Your task to perform on an android device: open a new tab in the chrome app Image 0: 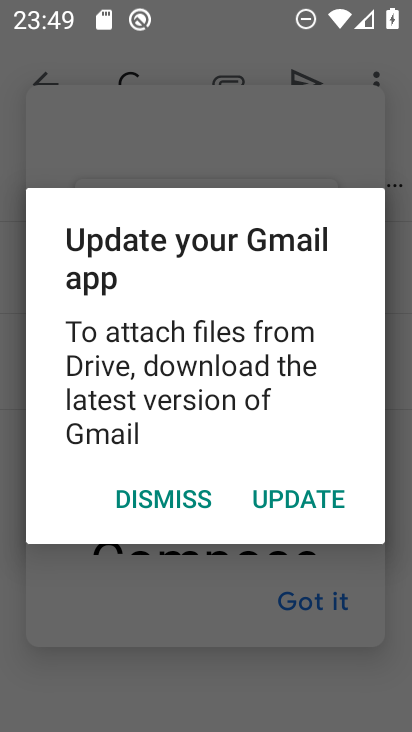
Step 0: press home button
Your task to perform on an android device: open a new tab in the chrome app Image 1: 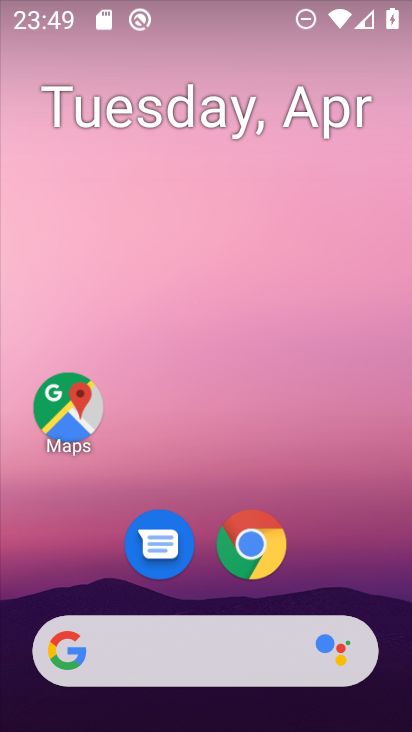
Step 1: drag from (317, 560) to (317, 183)
Your task to perform on an android device: open a new tab in the chrome app Image 2: 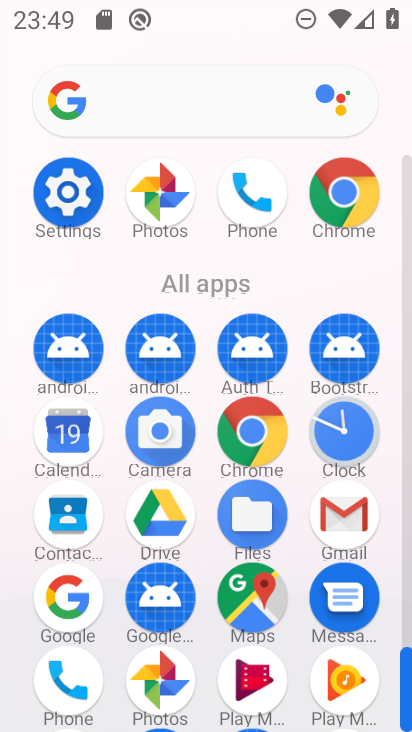
Step 2: click (347, 188)
Your task to perform on an android device: open a new tab in the chrome app Image 3: 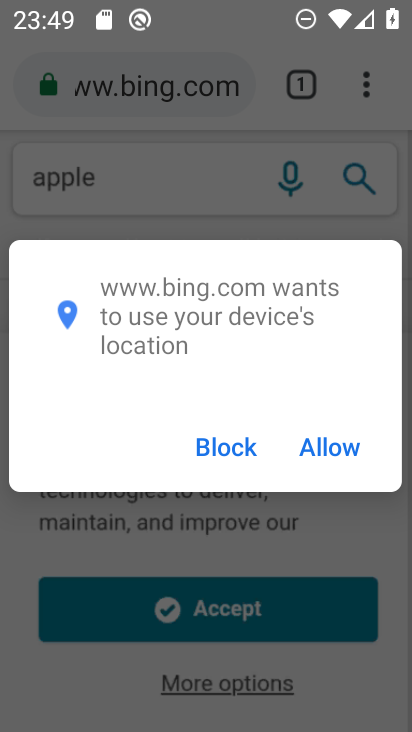
Step 3: click (257, 449)
Your task to perform on an android device: open a new tab in the chrome app Image 4: 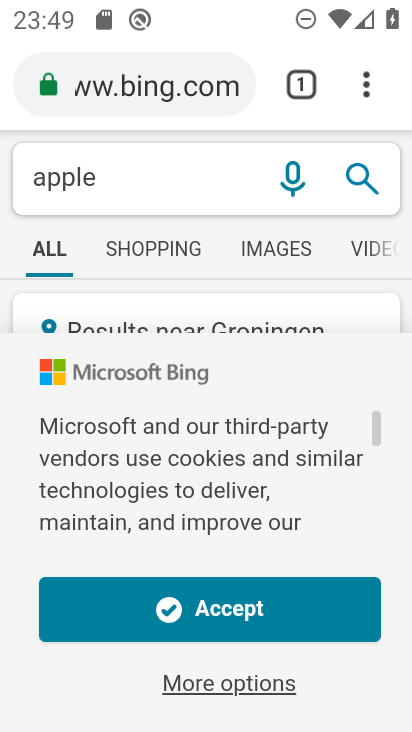
Step 4: click (363, 88)
Your task to perform on an android device: open a new tab in the chrome app Image 5: 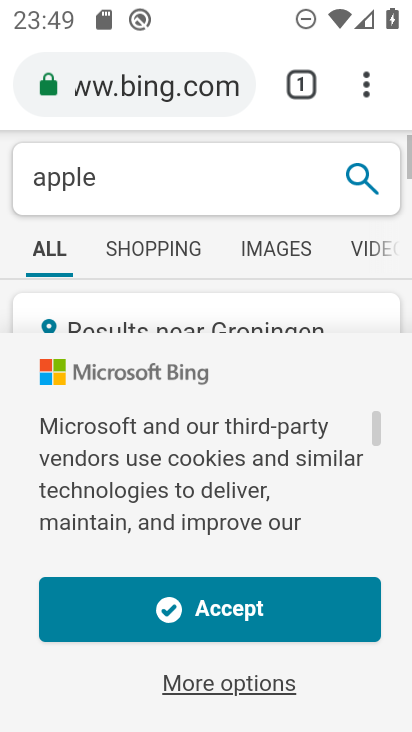
Step 5: click (363, 88)
Your task to perform on an android device: open a new tab in the chrome app Image 6: 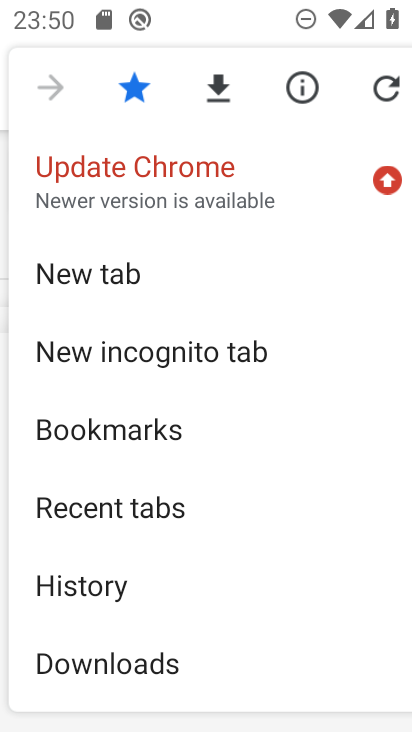
Step 6: click (114, 279)
Your task to perform on an android device: open a new tab in the chrome app Image 7: 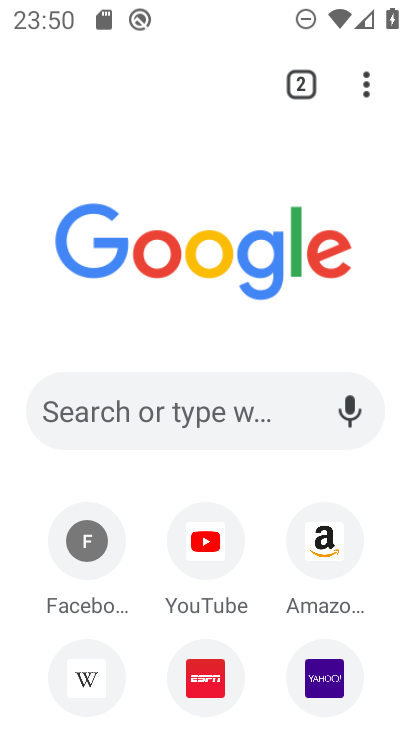
Step 7: task complete